Your task to perform on an android device: read, delete, or share a saved page in the chrome app Image 0: 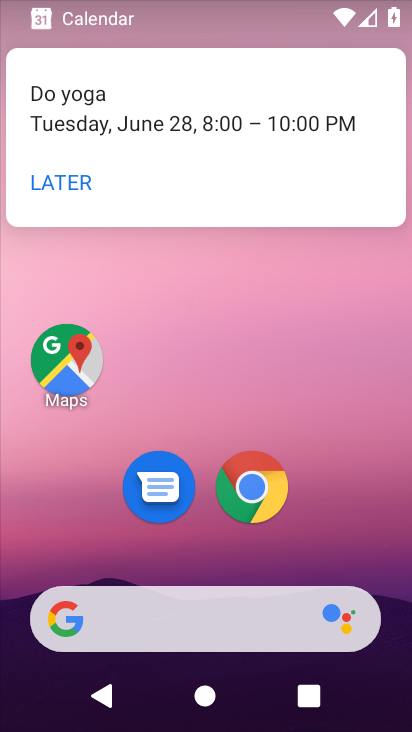
Step 0: drag from (369, 576) to (360, 309)
Your task to perform on an android device: read, delete, or share a saved page in the chrome app Image 1: 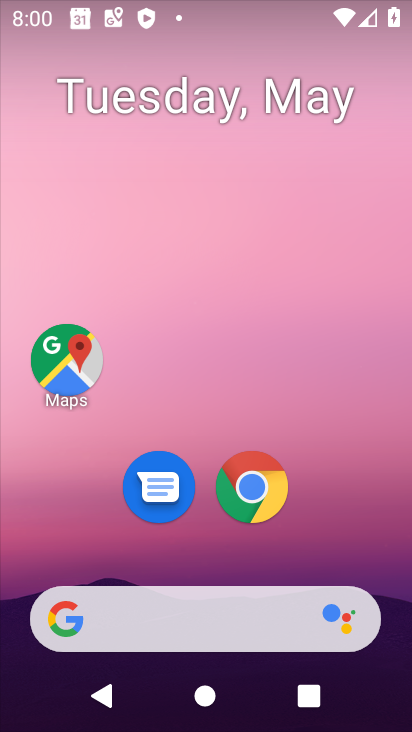
Step 1: drag from (360, 545) to (350, 206)
Your task to perform on an android device: read, delete, or share a saved page in the chrome app Image 2: 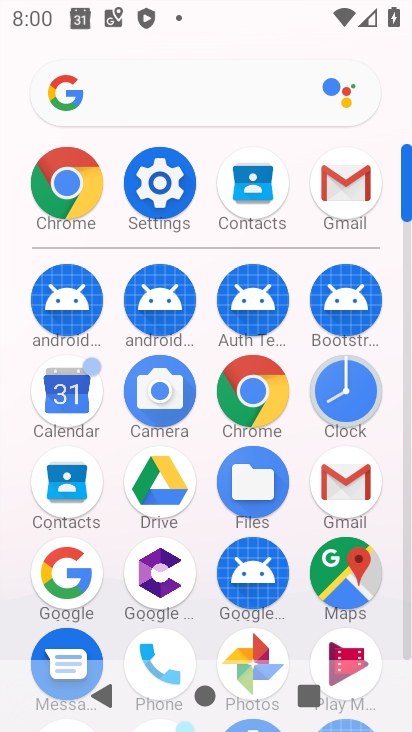
Step 2: click (265, 402)
Your task to perform on an android device: read, delete, or share a saved page in the chrome app Image 3: 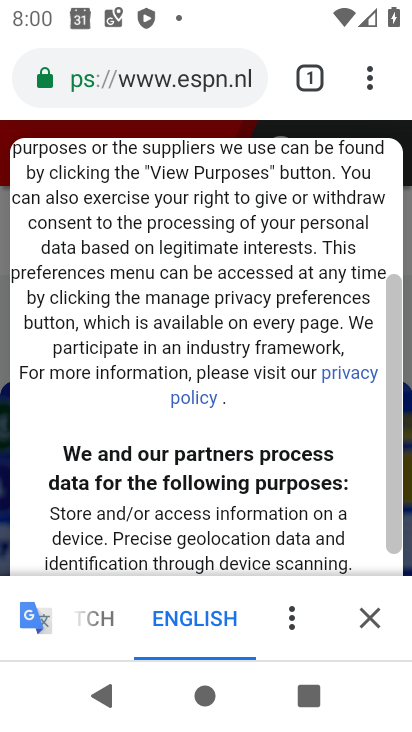
Step 3: click (371, 88)
Your task to perform on an android device: read, delete, or share a saved page in the chrome app Image 4: 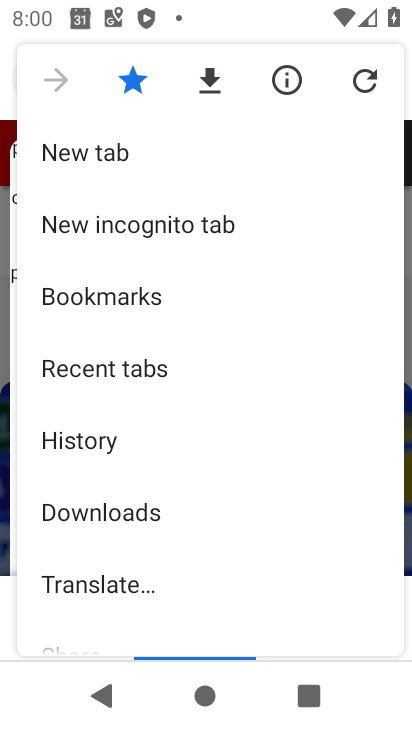
Step 4: click (162, 518)
Your task to perform on an android device: read, delete, or share a saved page in the chrome app Image 5: 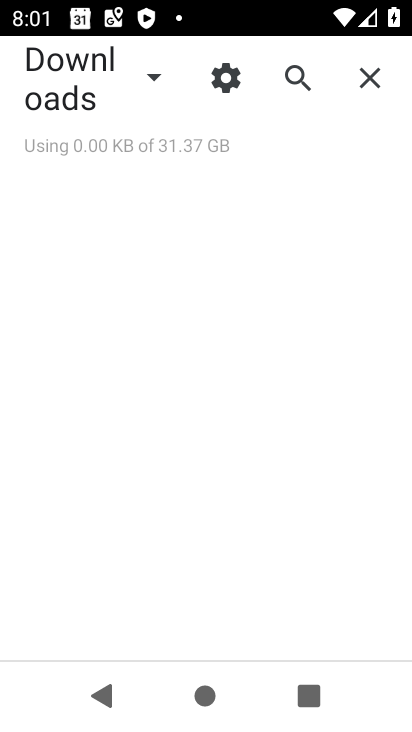
Step 5: click (152, 77)
Your task to perform on an android device: read, delete, or share a saved page in the chrome app Image 6: 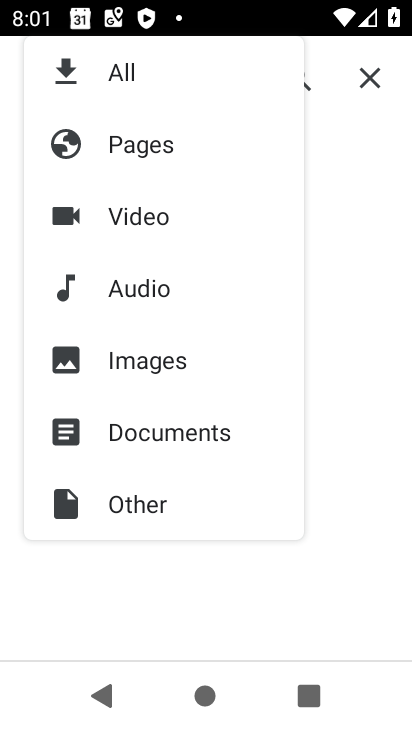
Step 6: click (159, 152)
Your task to perform on an android device: read, delete, or share a saved page in the chrome app Image 7: 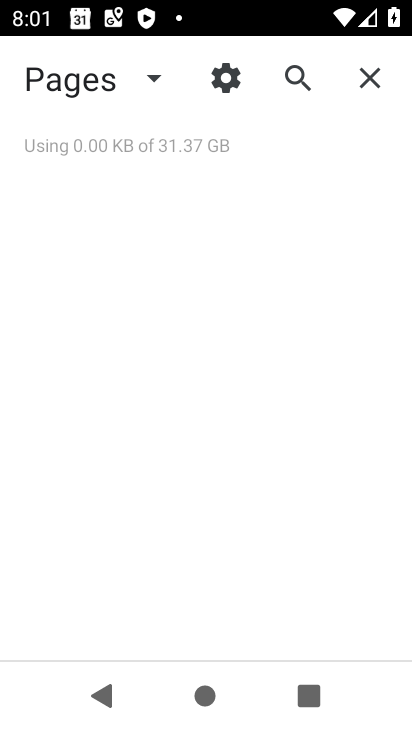
Step 7: task complete